Your task to perform on an android device: Search for razer nari on amazon.com, select the first entry, and add it to the cart. Image 0: 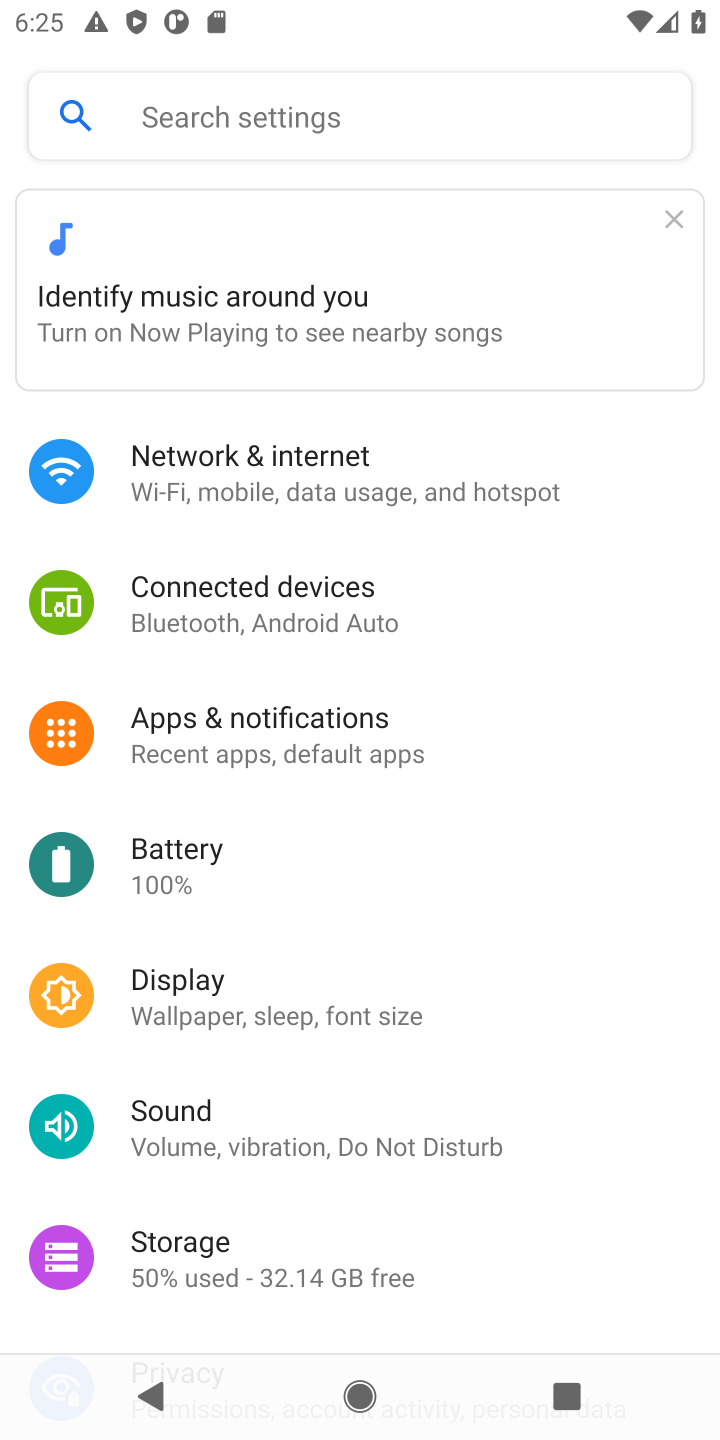
Step 0: press home button
Your task to perform on an android device: Search for razer nari on amazon.com, select the first entry, and add it to the cart. Image 1: 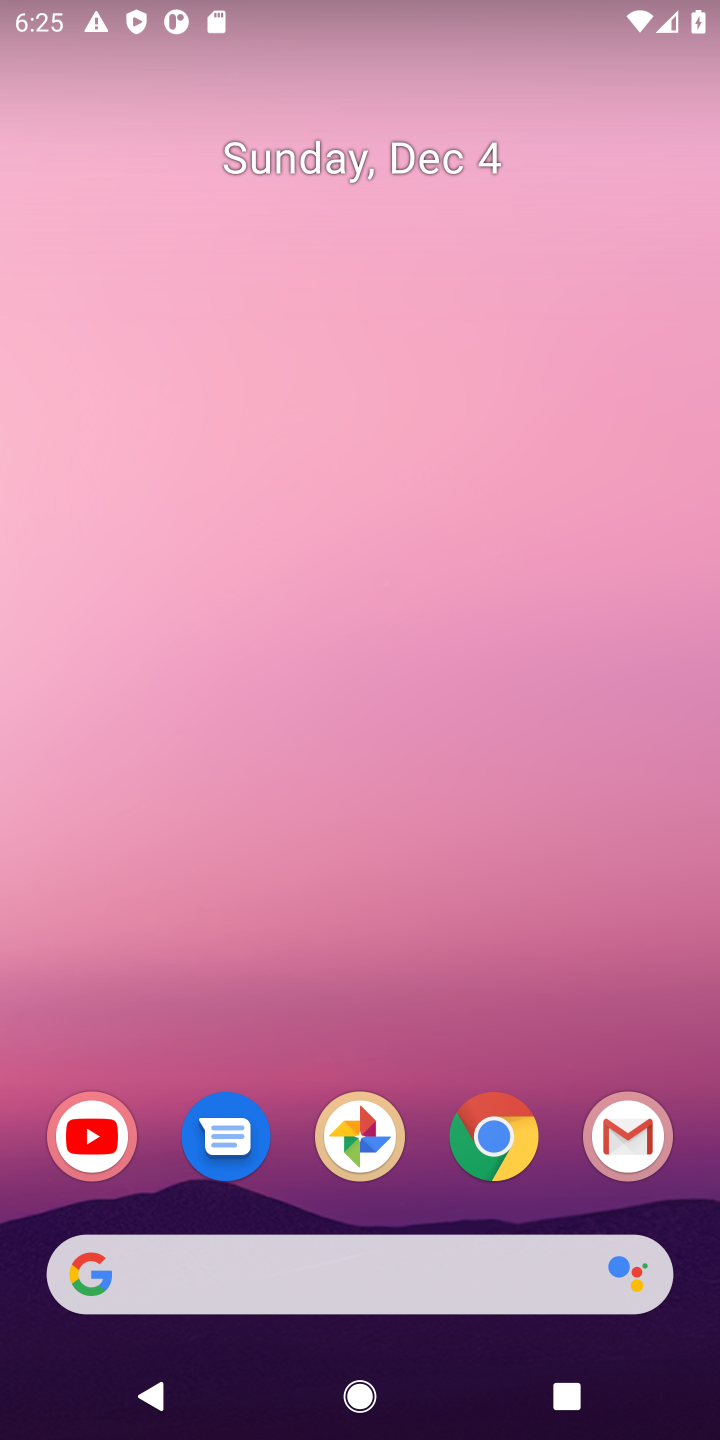
Step 1: click (495, 1175)
Your task to perform on an android device: Search for razer nari on amazon.com, select the first entry, and add it to the cart. Image 2: 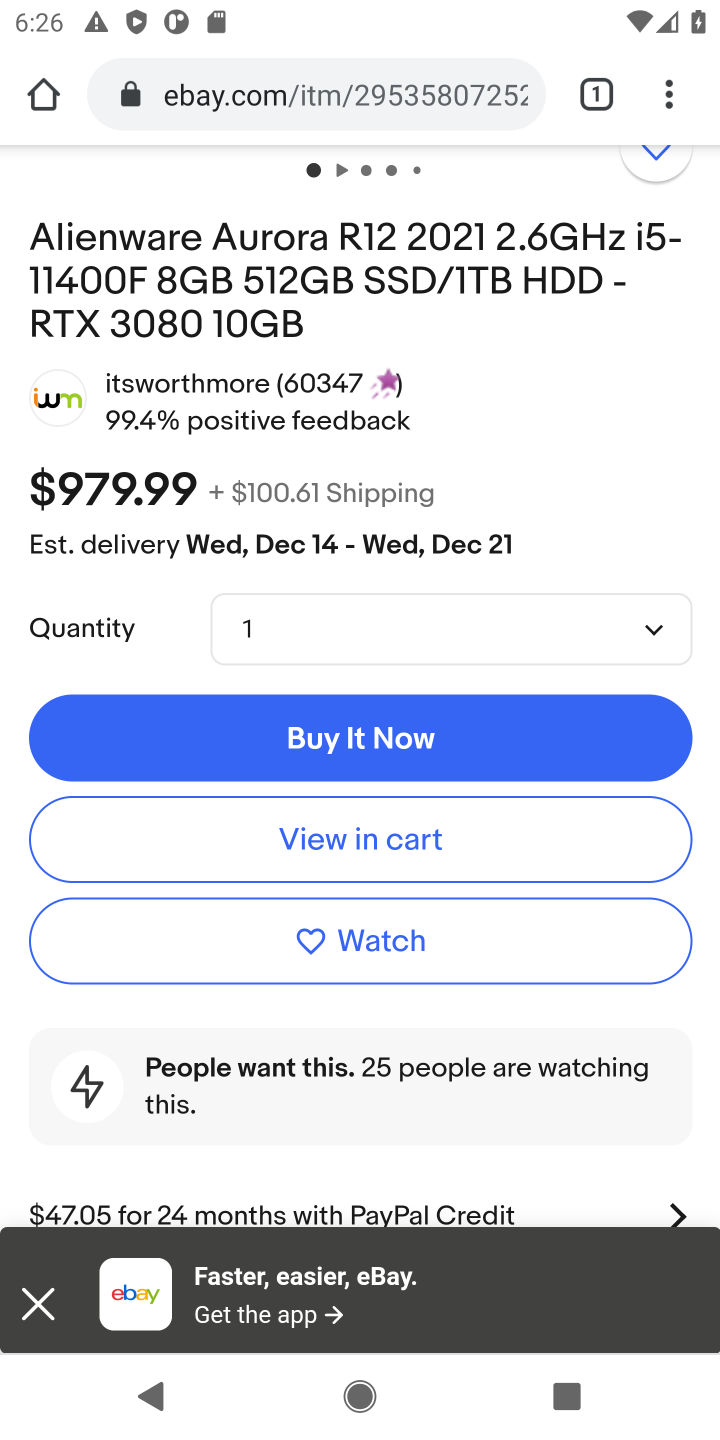
Step 2: click (321, 90)
Your task to perform on an android device: Search for razer nari on amazon.com, select the first entry, and add it to the cart. Image 3: 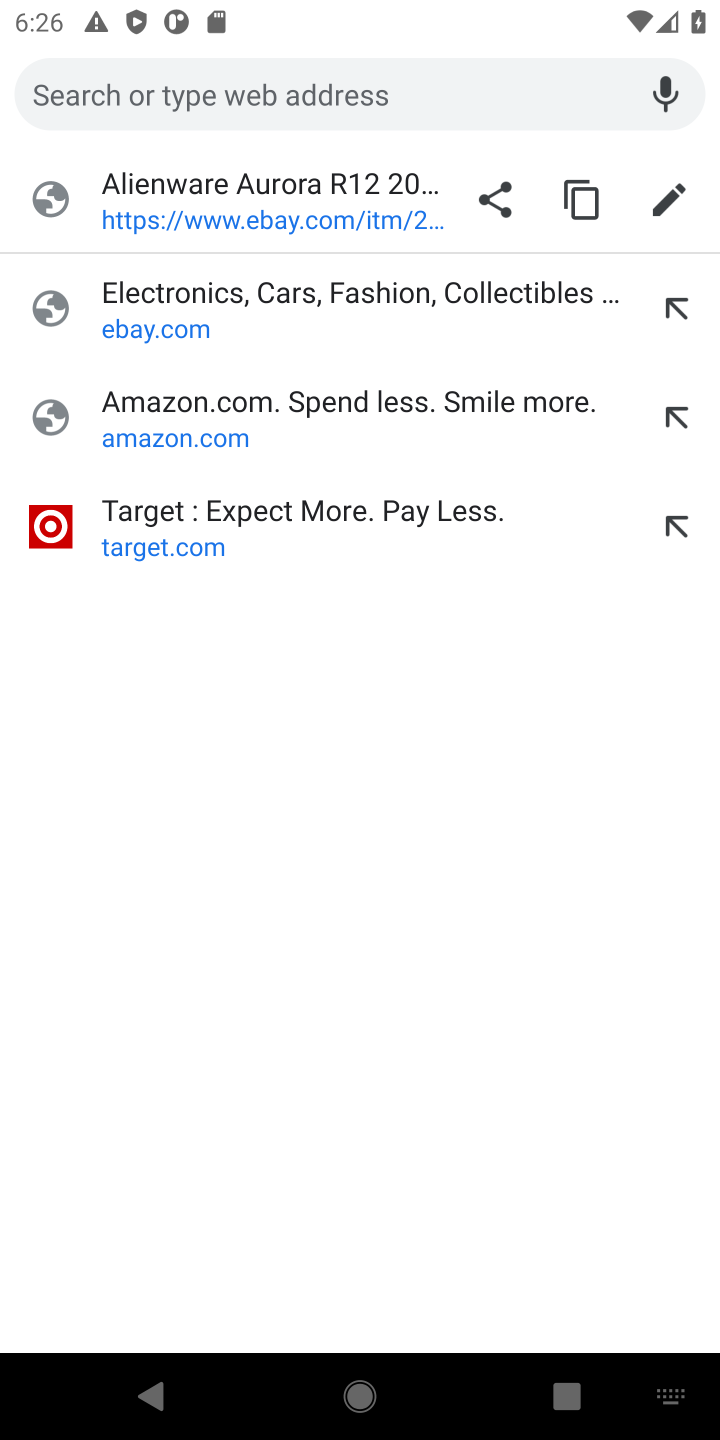
Step 3: click (162, 430)
Your task to perform on an android device: Search for razer nari on amazon.com, select the first entry, and add it to the cart. Image 4: 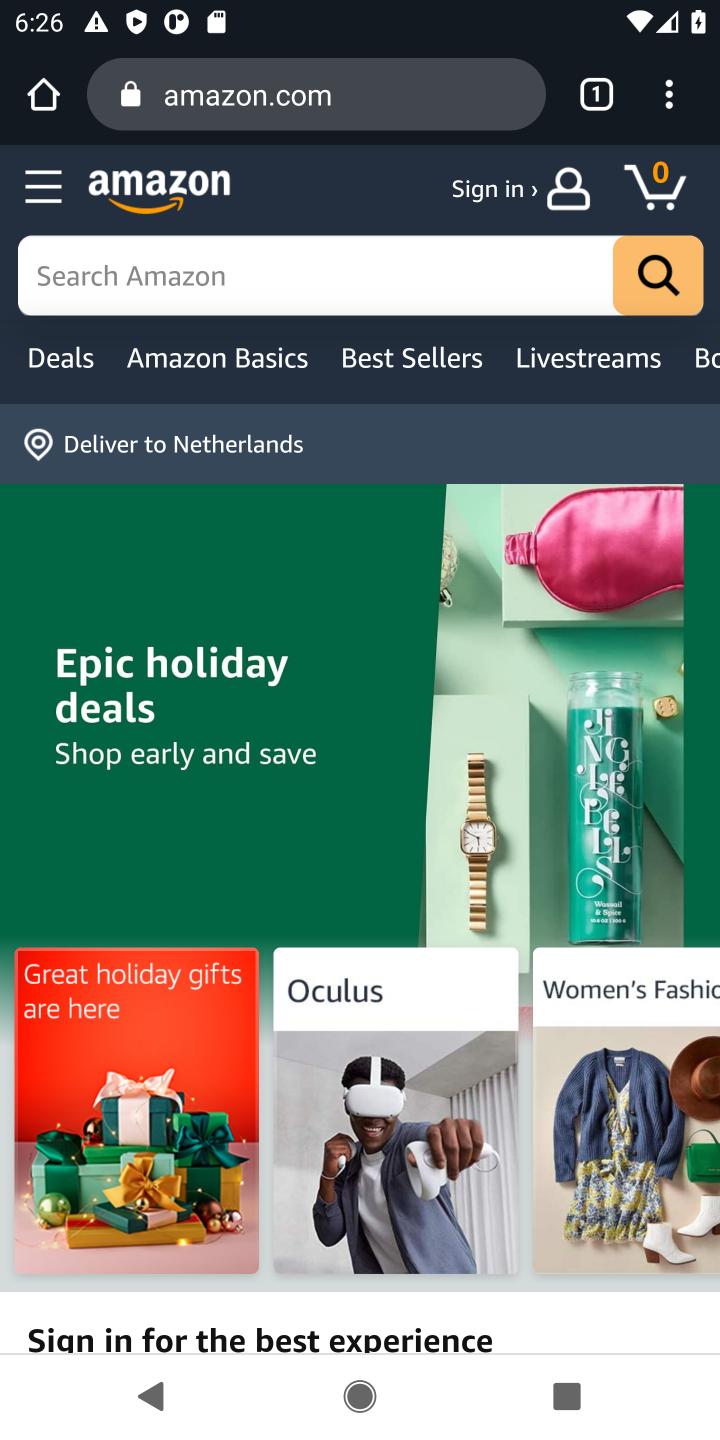
Step 4: click (220, 292)
Your task to perform on an android device: Search for razer nari on amazon.com, select the first entry, and add it to the cart. Image 5: 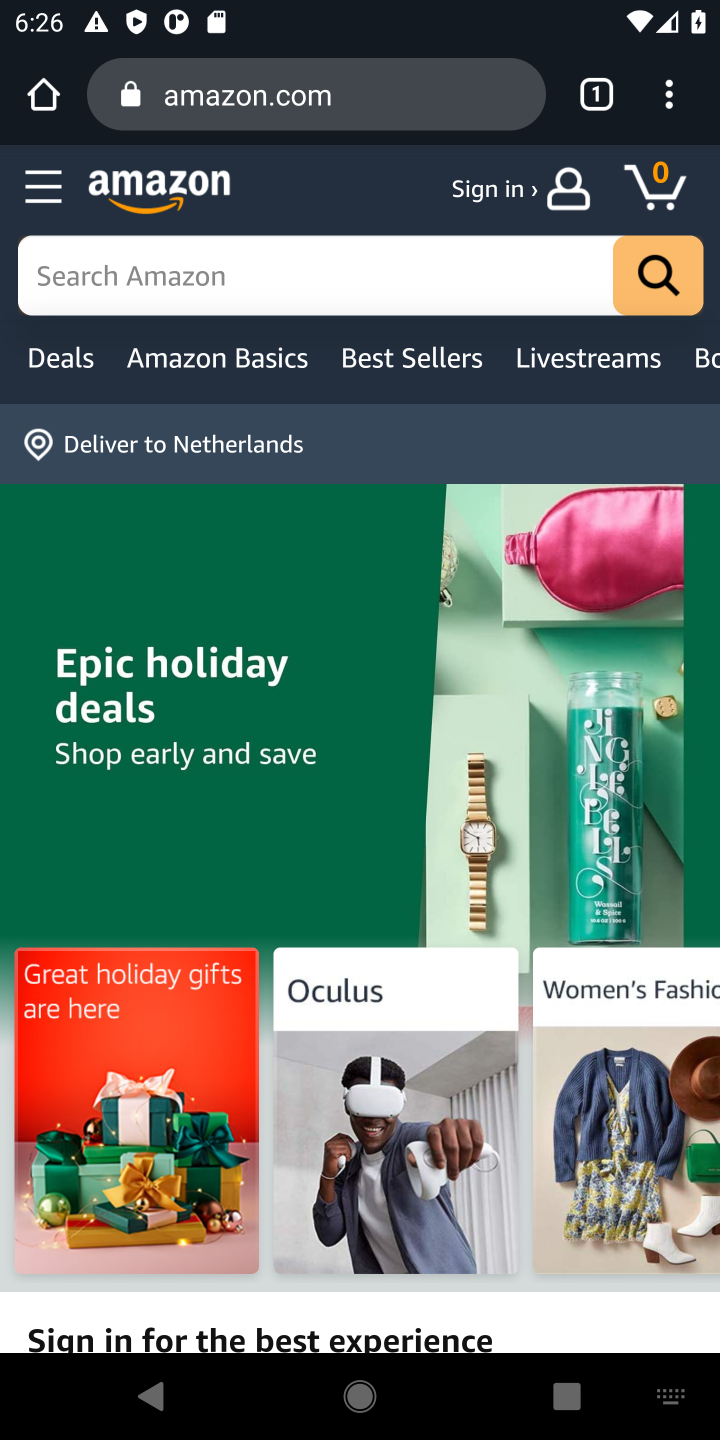
Step 5: type "razer nari"
Your task to perform on an android device: Search for razer nari on amazon.com, select the first entry, and add it to the cart. Image 6: 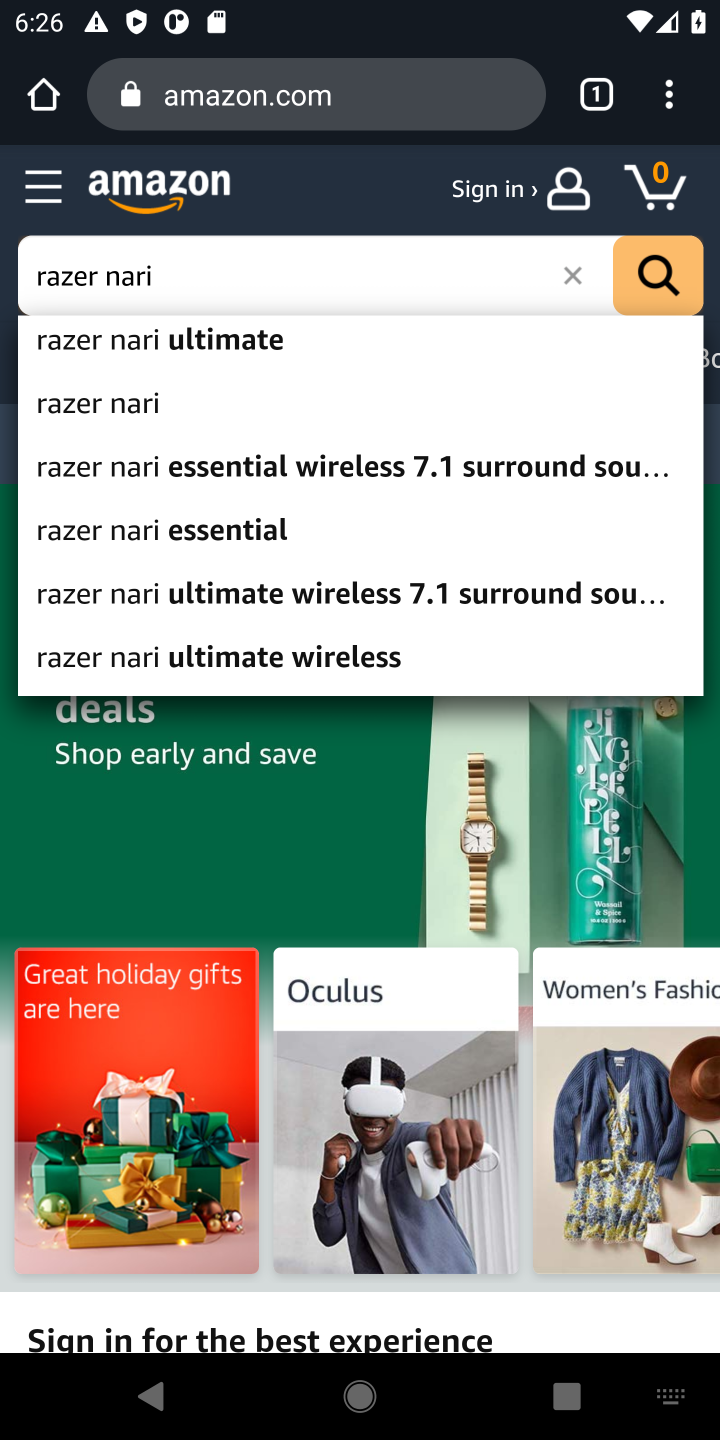
Step 6: click (123, 423)
Your task to perform on an android device: Search for razer nari on amazon.com, select the first entry, and add it to the cart. Image 7: 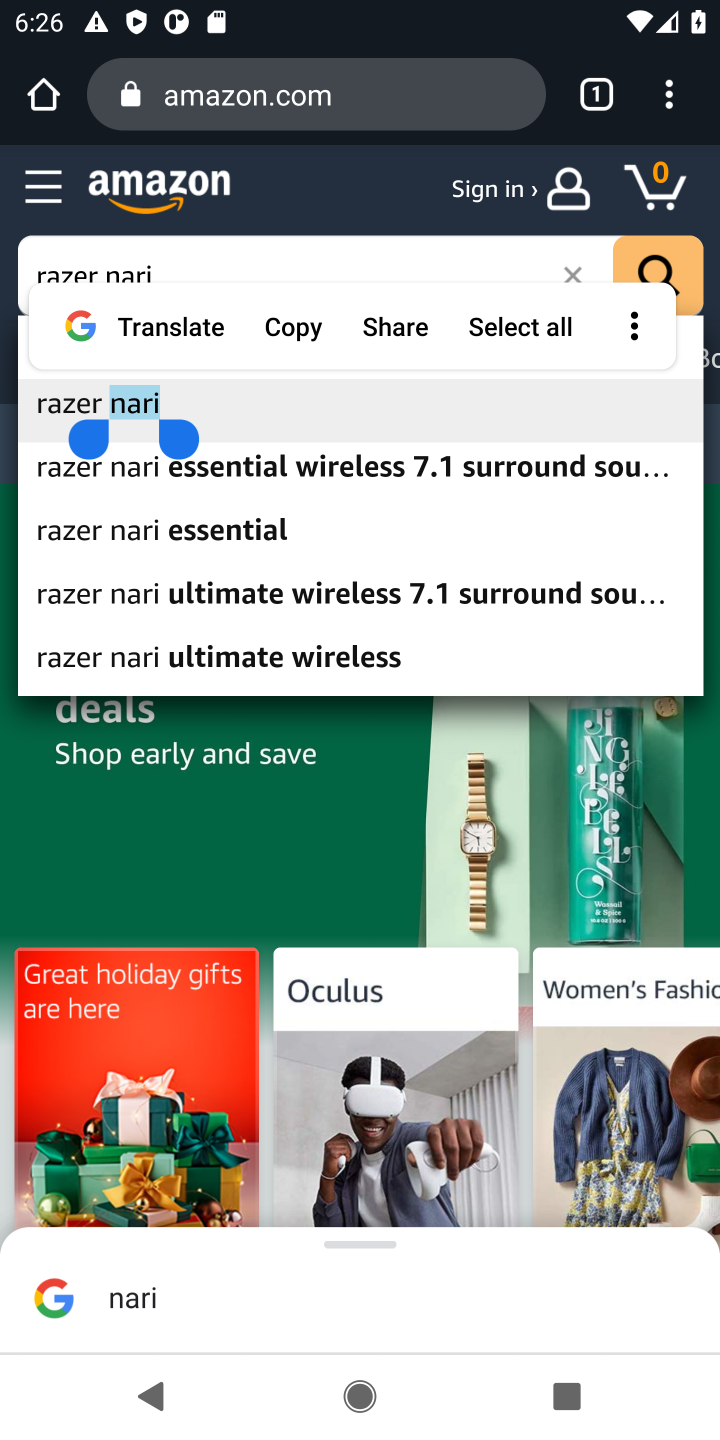
Step 7: click (70, 411)
Your task to perform on an android device: Search for razer nari on amazon.com, select the first entry, and add it to the cart. Image 8: 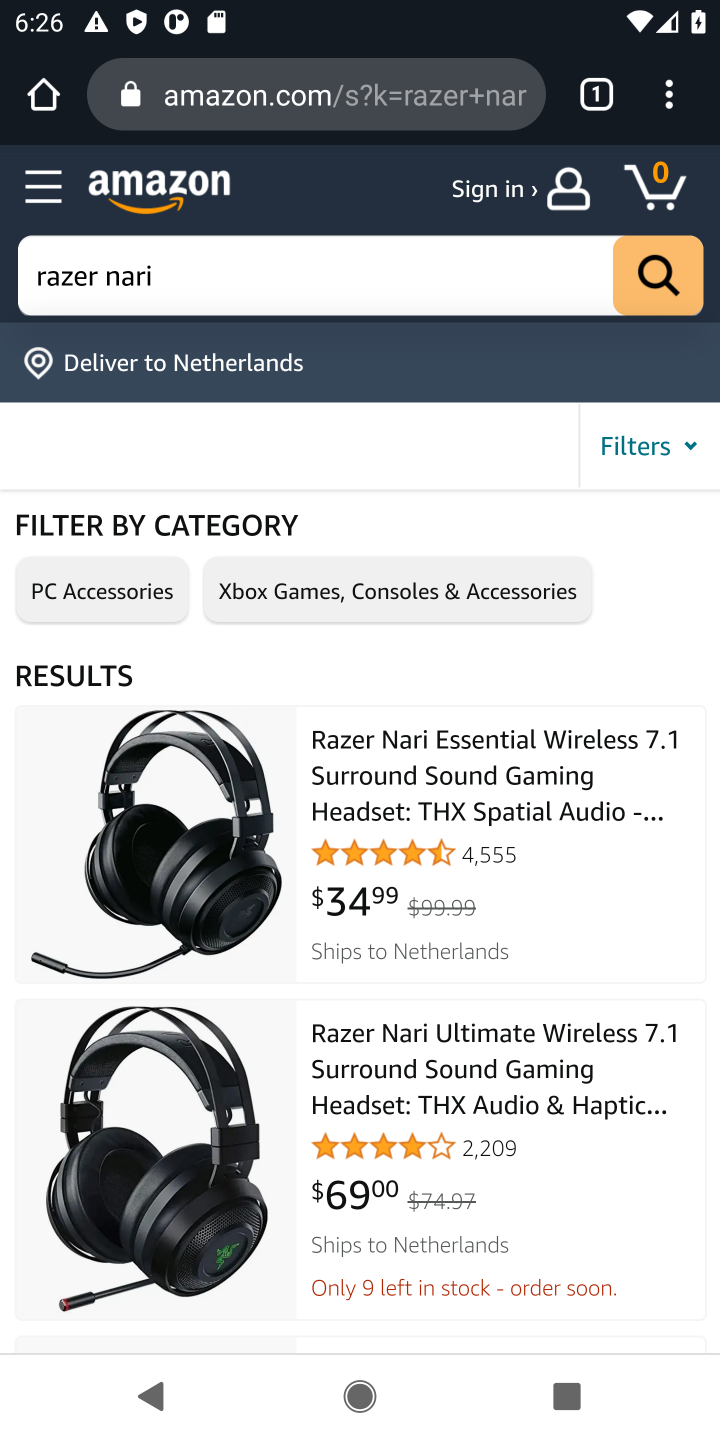
Step 8: click (439, 797)
Your task to perform on an android device: Search for razer nari on amazon.com, select the first entry, and add it to the cart. Image 9: 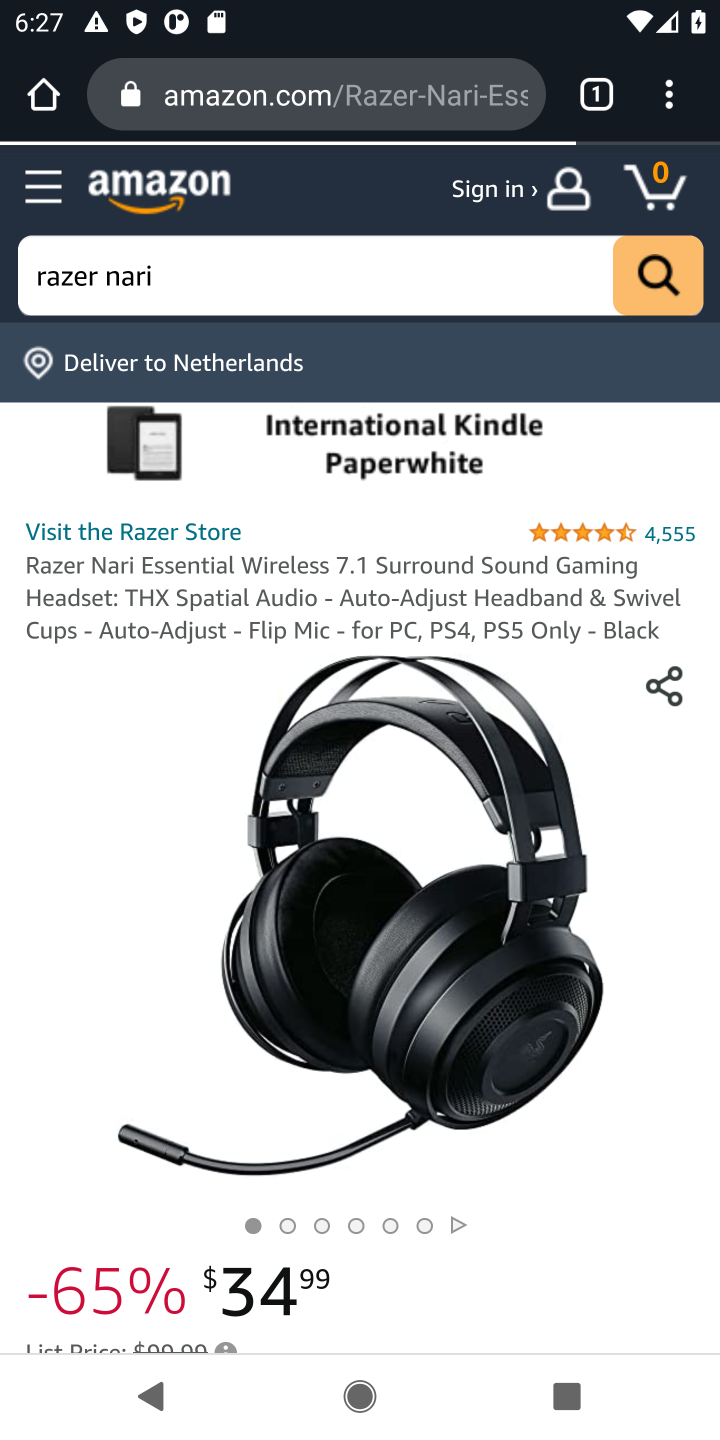
Step 9: drag from (378, 1043) to (424, 401)
Your task to perform on an android device: Search for razer nari on amazon.com, select the first entry, and add it to the cart. Image 10: 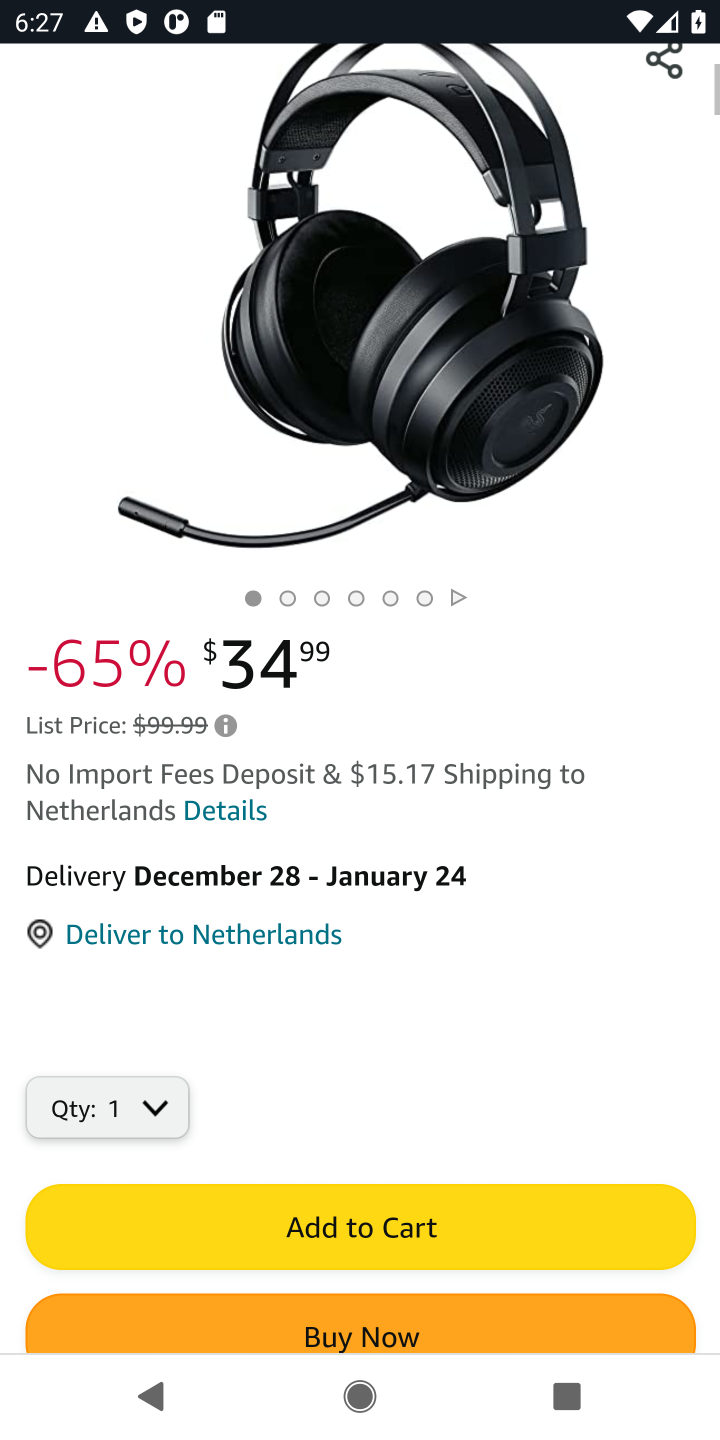
Step 10: drag from (438, 1022) to (438, 627)
Your task to perform on an android device: Search for razer nari on amazon.com, select the first entry, and add it to the cart. Image 11: 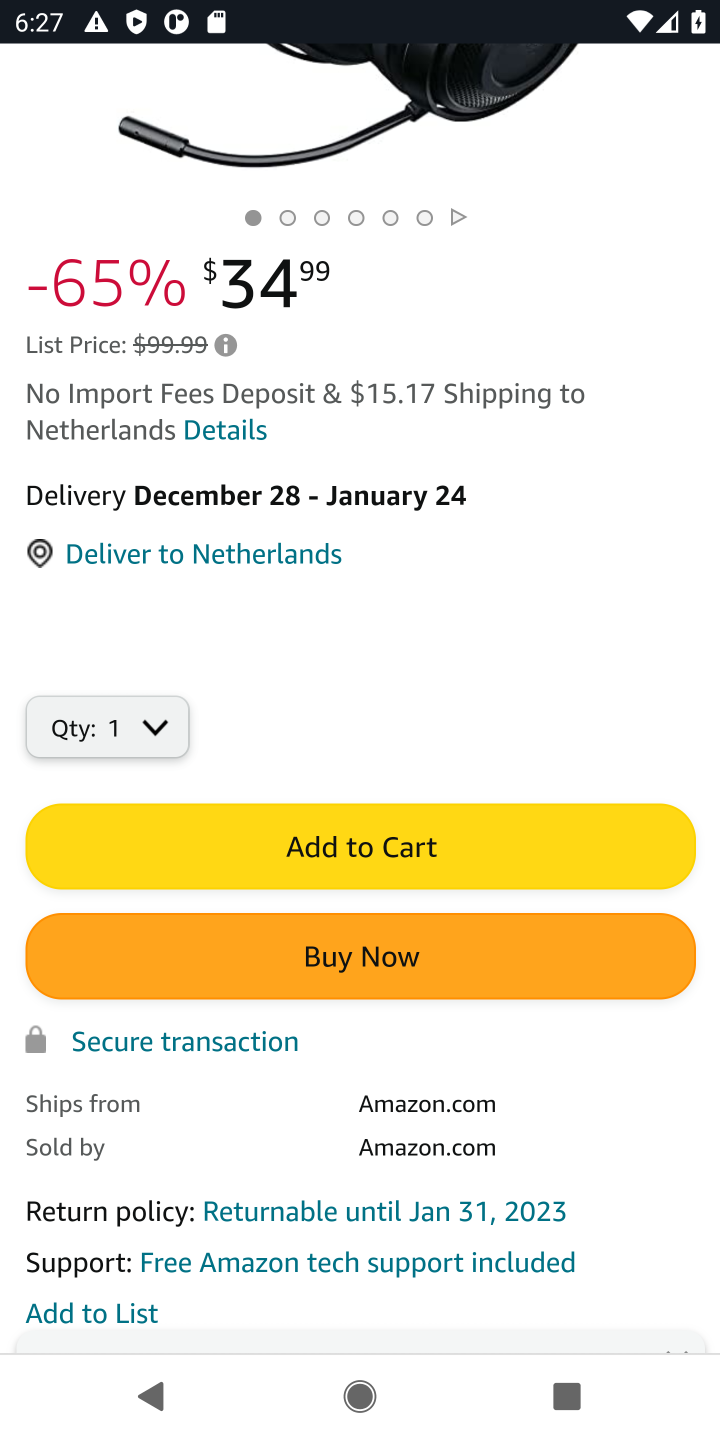
Step 11: click (333, 844)
Your task to perform on an android device: Search for razer nari on amazon.com, select the first entry, and add it to the cart. Image 12: 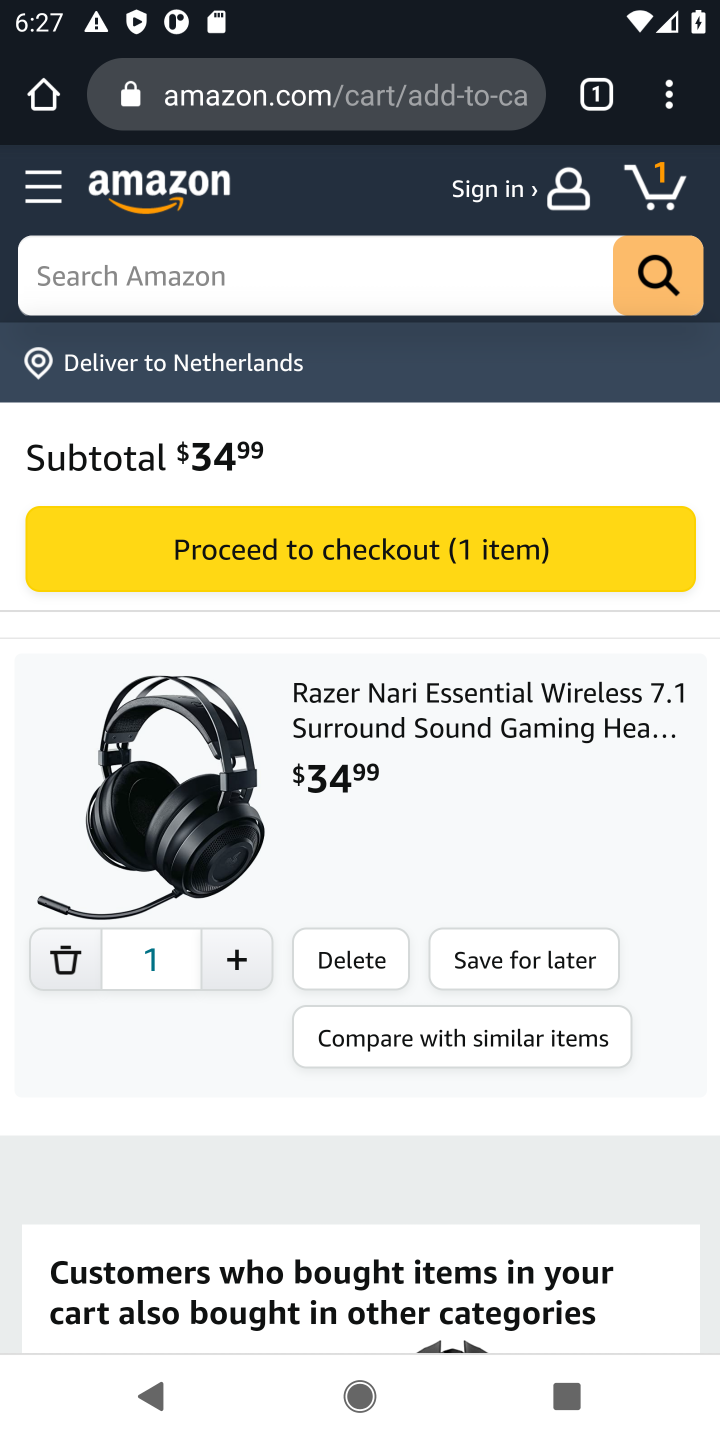
Step 12: task complete